Your task to perform on an android device: turn on data saver in the chrome app Image 0: 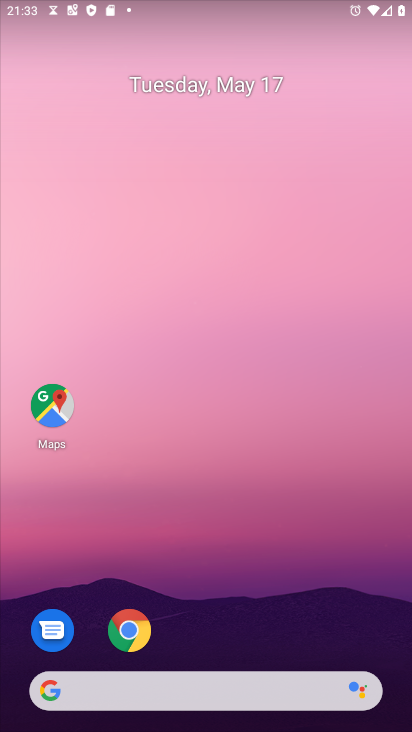
Step 0: click (138, 644)
Your task to perform on an android device: turn on data saver in the chrome app Image 1: 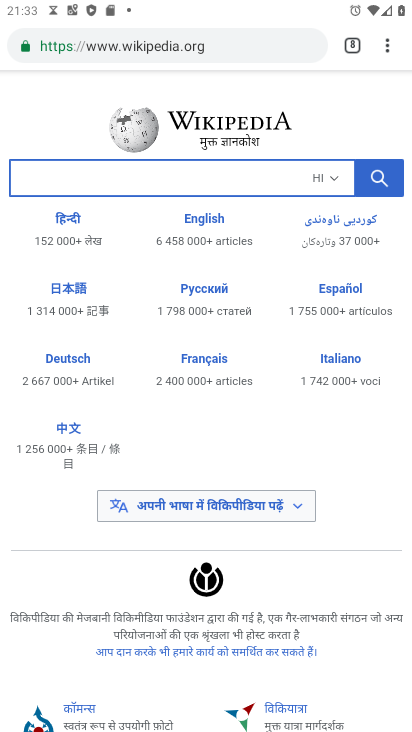
Step 1: click (386, 46)
Your task to perform on an android device: turn on data saver in the chrome app Image 2: 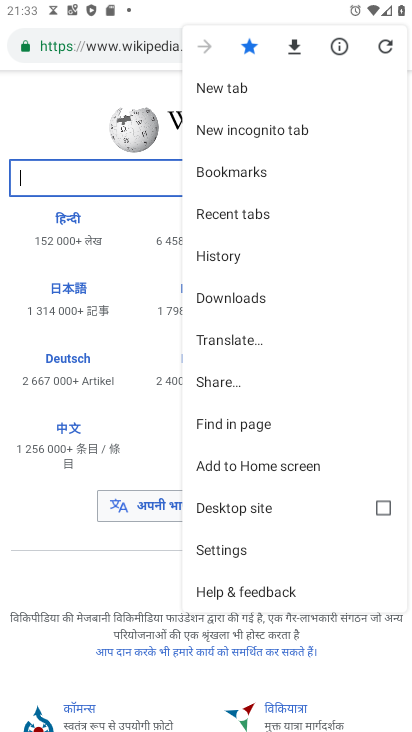
Step 2: click (223, 548)
Your task to perform on an android device: turn on data saver in the chrome app Image 3: 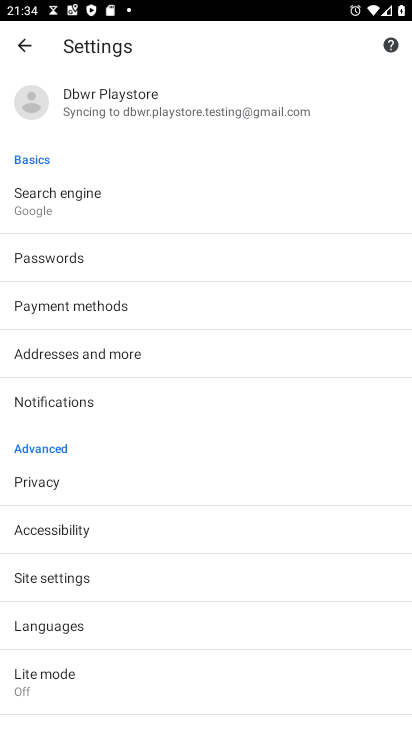
Step 3: click (35, 689)
Your task to perform on an android device: turn on data saver in the chrome app Image 4: 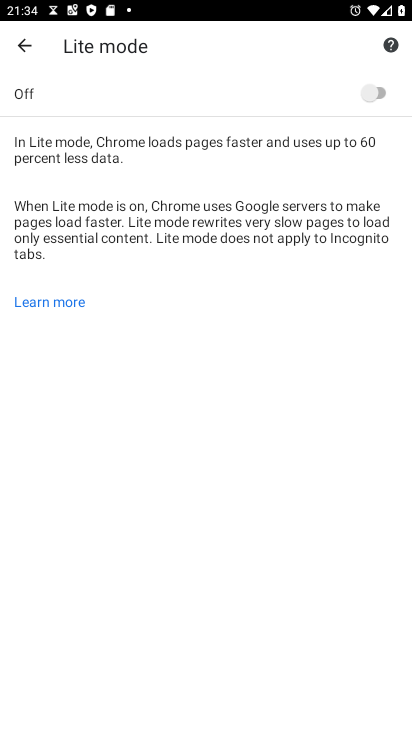
Step 4: click (368, 93)
Your task to perform on an android device: turn on data saver in the chrome app Image 5: 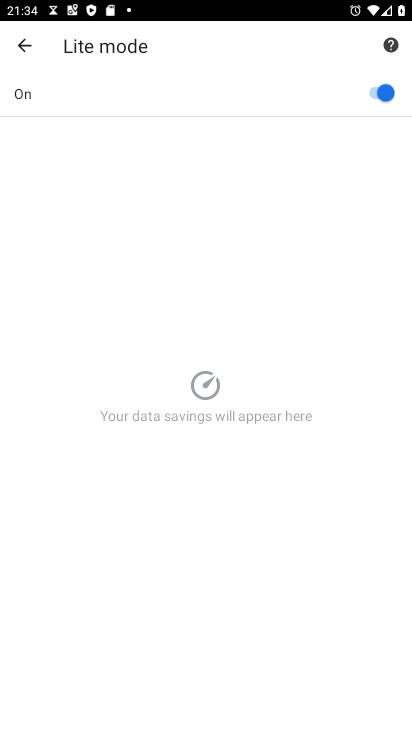
Step 5: task complete